Your task to perform on an android device: open wifi settings Image 0: 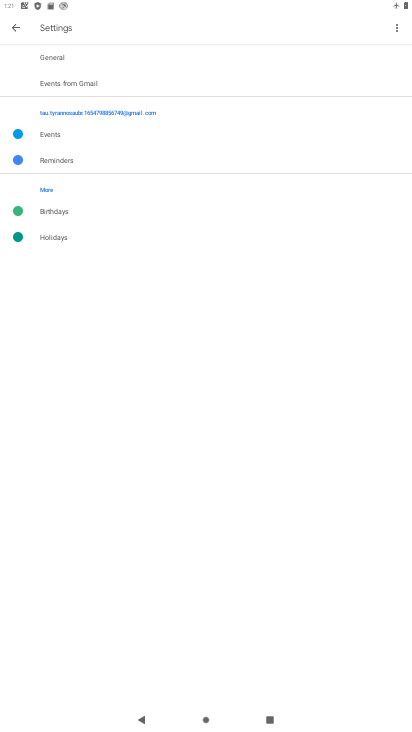
Step 0: press home button
Your task to perform on an android device: open wifi settings Image 1: 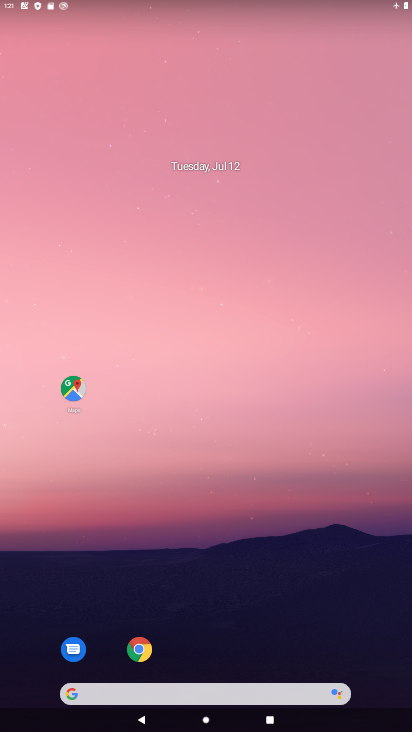
Step 1: drag from (287, 626) to (177, 7)
Your task to perform on an android device: open wifi settings Image 2: 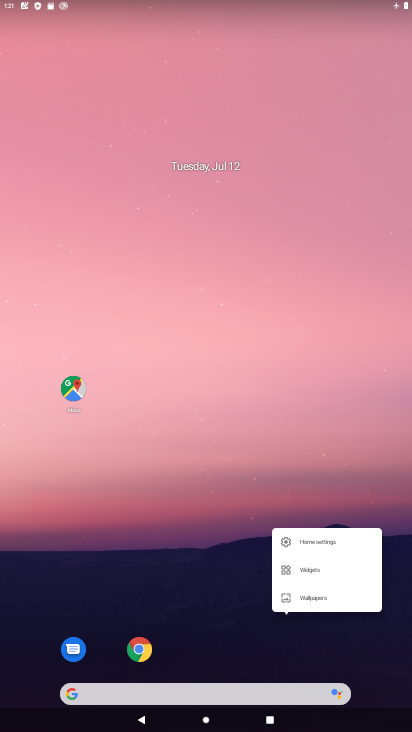
Step 2: click (185, 296)
Your task to perform on an android device: open wifi settings Image 3: 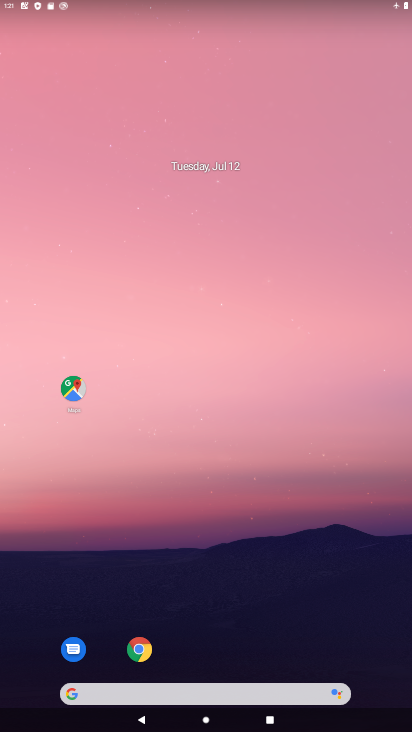
Step 3: drag from (268, 659) to (206, 62)
Your task to perform on an android device: open wifi settings Image 4: 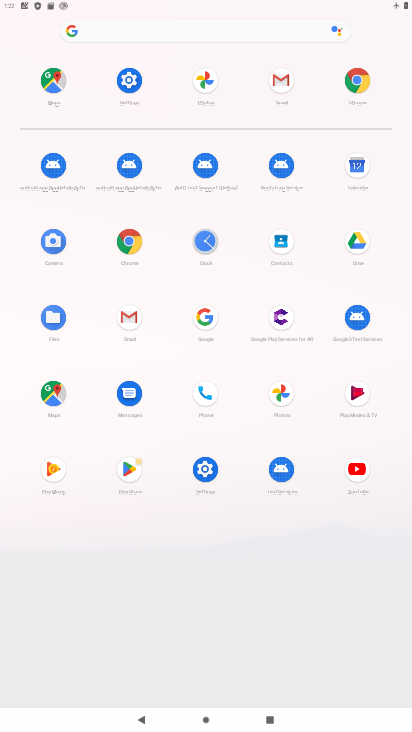
Step 4: click (118, 91)
Your task to perform on an android device: open wifi settings Image 5: 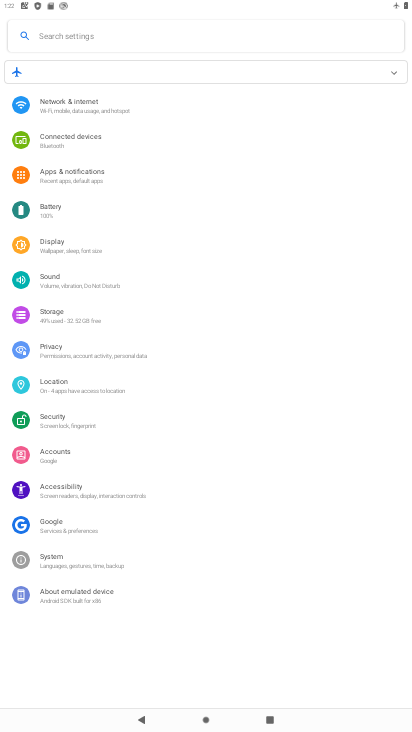
Step 5: click (76, 118)
Your task to perform on an android device: open wifi settings Image 6: 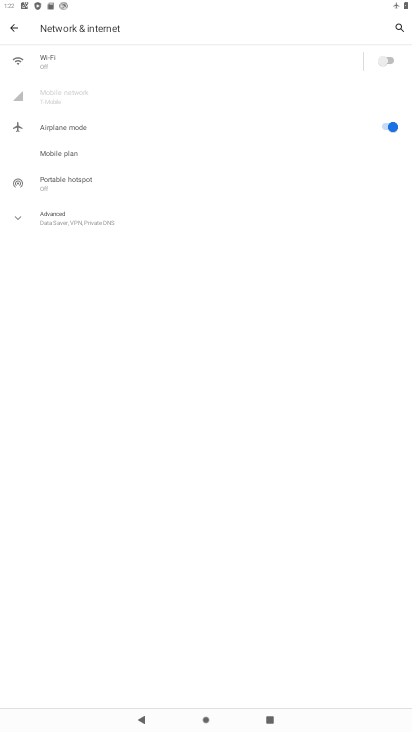
Step 6: click (128, 63)
Your task to perform on an android device: open wifi settings Image 7: 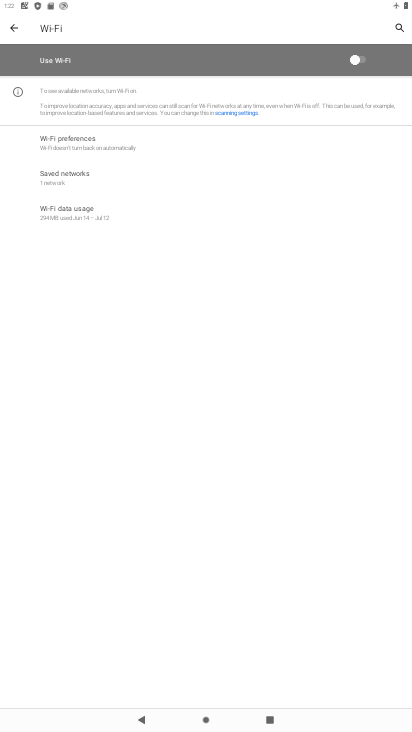
Step 7: click (376, 57)
Your task to perform on an android device: open wifi settings Image 8: 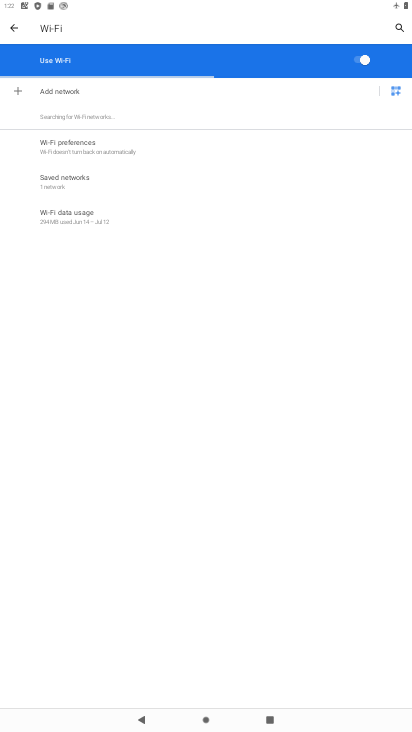
Step 8: task complete